Your task to perform on an android device: Open eBay Image 0: 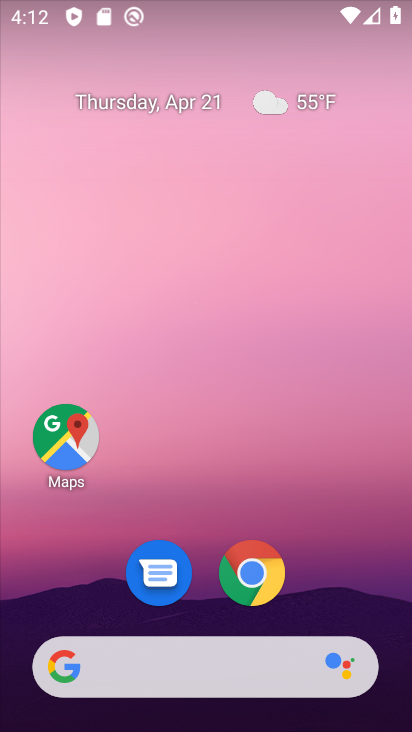
Step 0: click (253, 571)
Your task to perform on an android device: Open eBay Image 1: 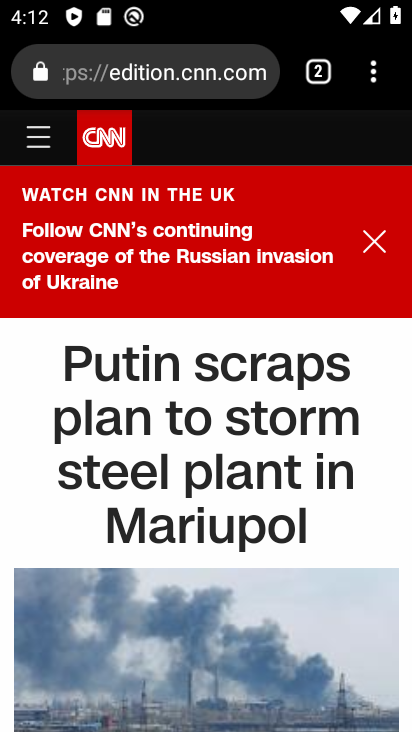
Step 1: click (150, 72)
Your task to perform on an android device: Open eBay Image 2: 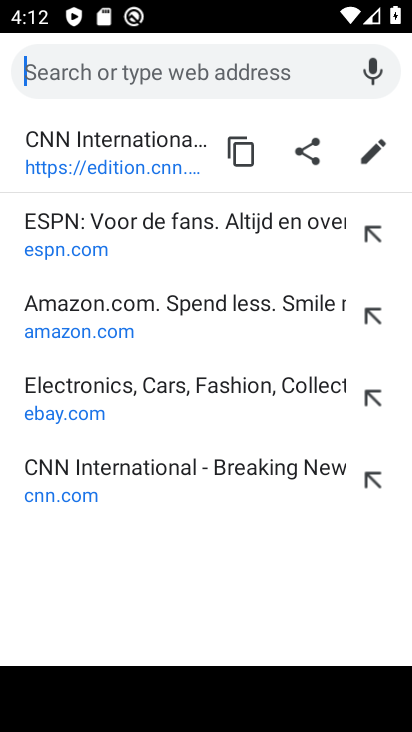
Step 2: type "ebay"
Your task to perform on an android device: Open eBay Image 3: 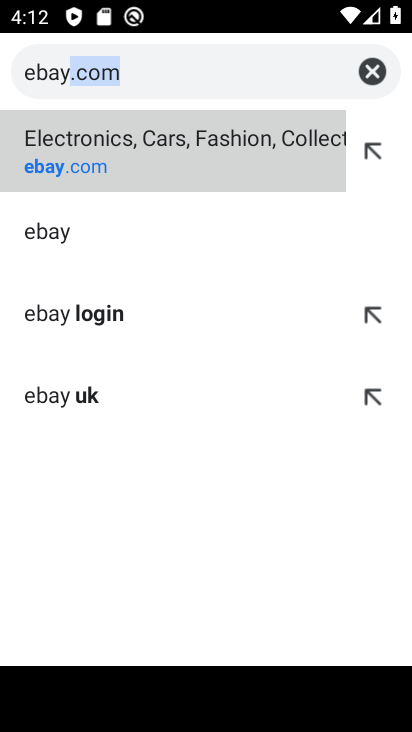
Step 3: click (45, 142)
Your task to perform on an android device: Open eBay Image 4: 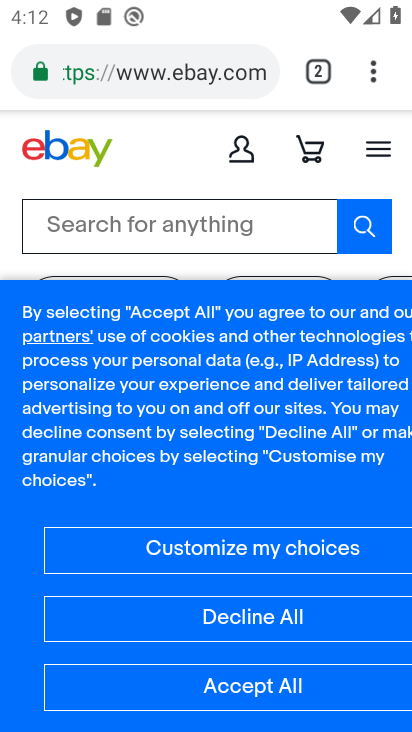
Step 4: task complete